Your task to perform on an android device: toggle priority inbox in the gmail app Image 0: 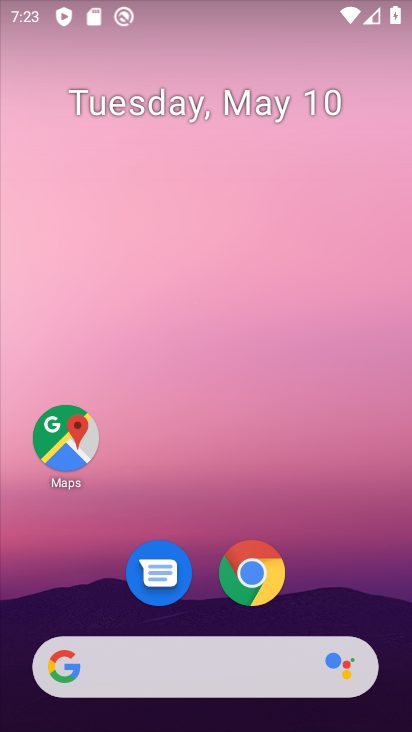
Step 0: drag from (302, 567) to (297, 132)
Your task to perform on an android device: toggle priority inbox in the gmail app Image 1: 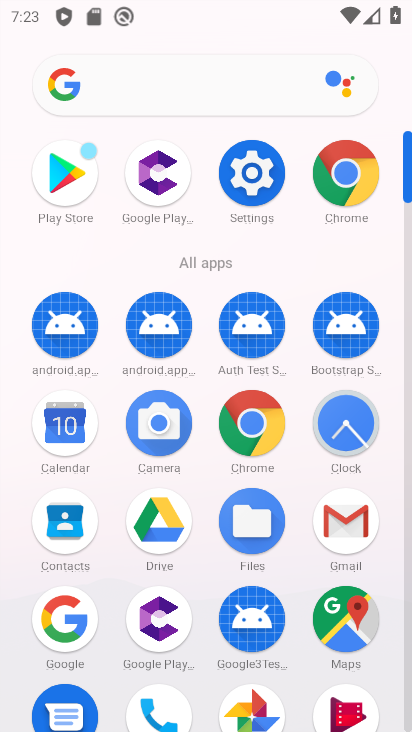
Step 1: click (356, 508)
Your task to perform on an android device: toggle priority inbox in the gmail app Image 2: 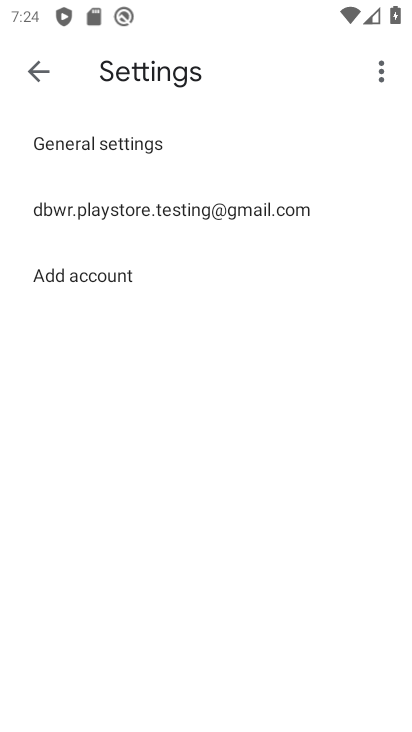
Step 2: click (83, 210)
Your task to perform on an android device: toggle priority inbox in the gmail app Image 3: 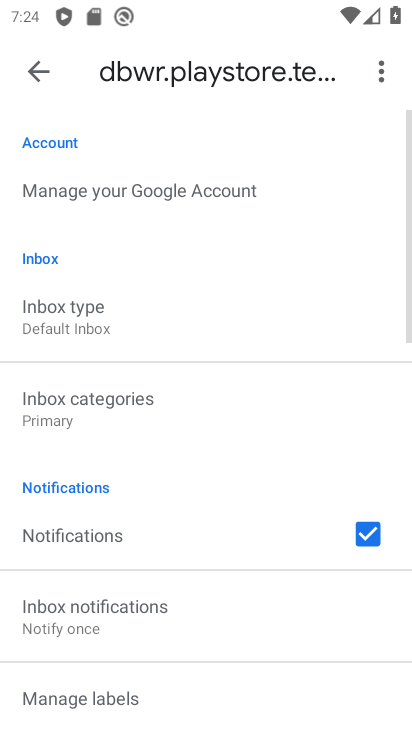
Step 3: click (69, 318)
Your task to perform on an android device: toggle priority inbox in the gmail app Image 4: 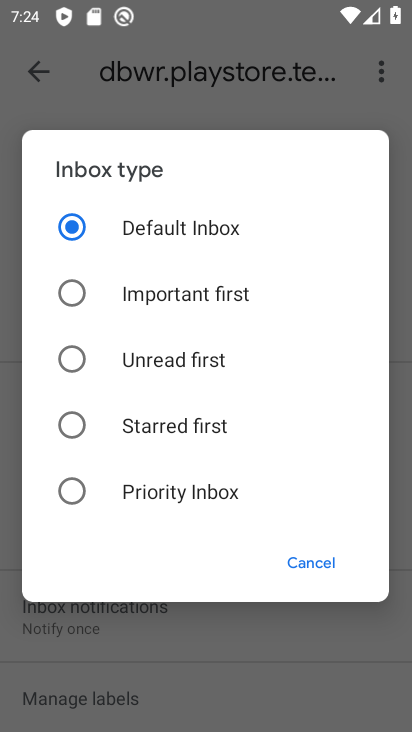
Step 4: click (66, 489)
Your task to perform on an android device: toggle priority inbox in the gmail app Image 5: 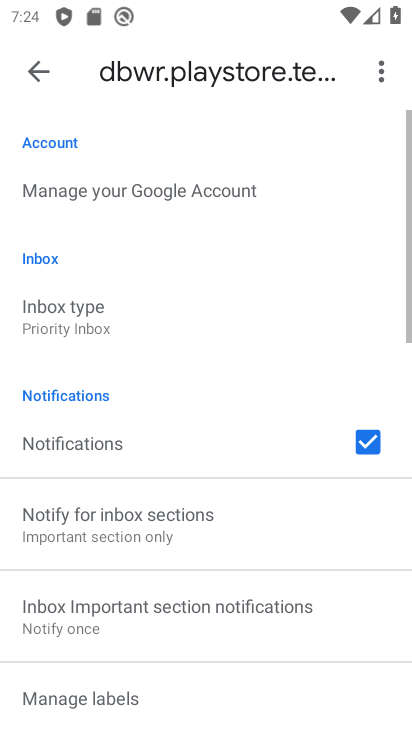
Step 5: task complete